Your task to perform on an android device: turn on javascript in the chrome app Image 0: 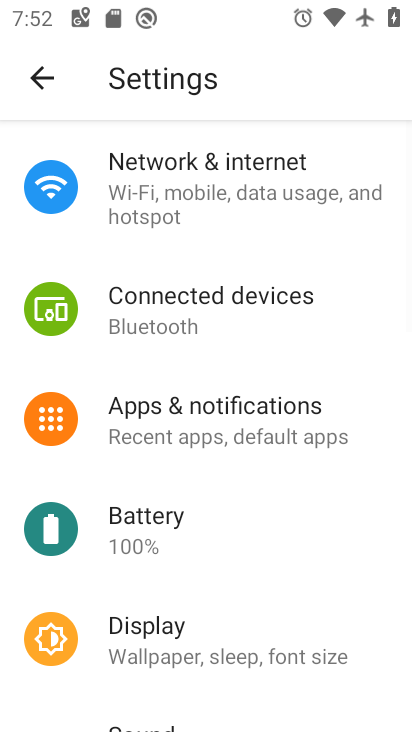
Step 0: press home button
Your task to perform on an android device: turn on javascript in the chrome app Image 1: 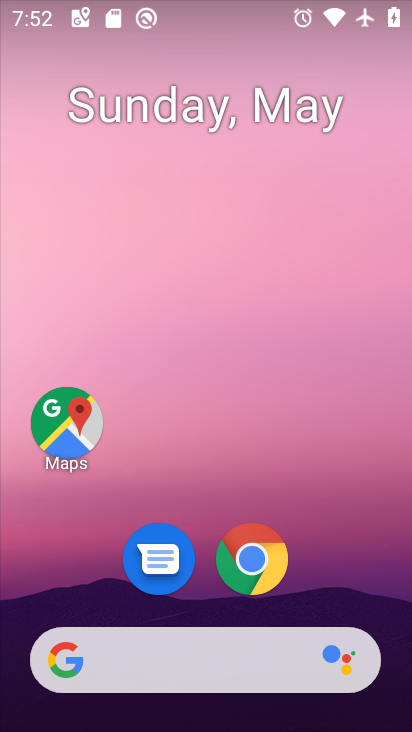
Step 1: click (251, 564)
Your task to perform on an android device: turn on javascript in the chrome app Image 2: 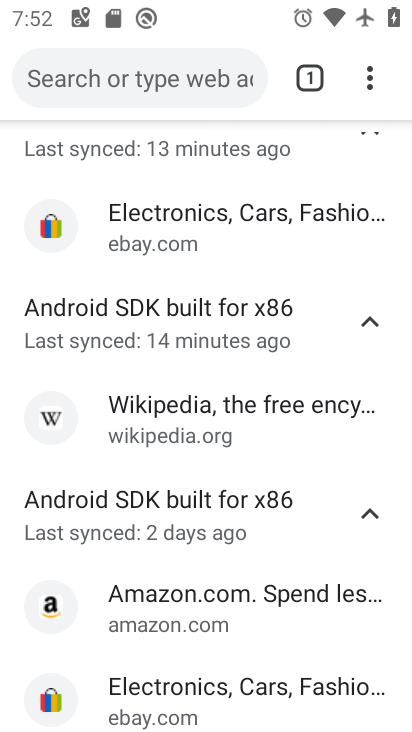
Step 2: drag from (367, 73) to (162, 622)
Your task to perform on an android device: turn on javascript in the chrome app Image 3: 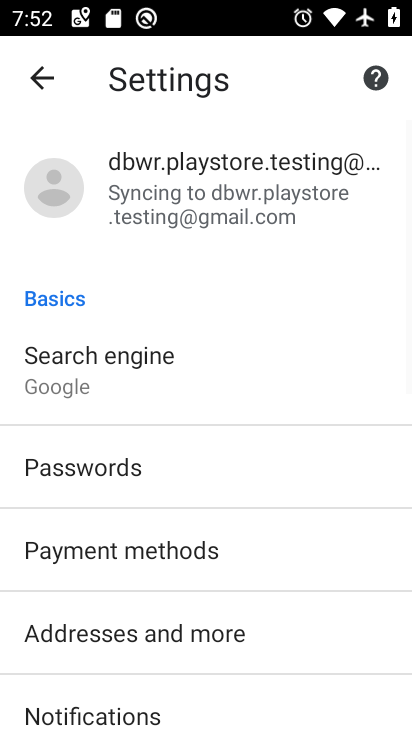
Step 3: drag from (218, 604) to (383, 3)
Your task to perform on an android device: turn on javascript in the chrome app Image 4: 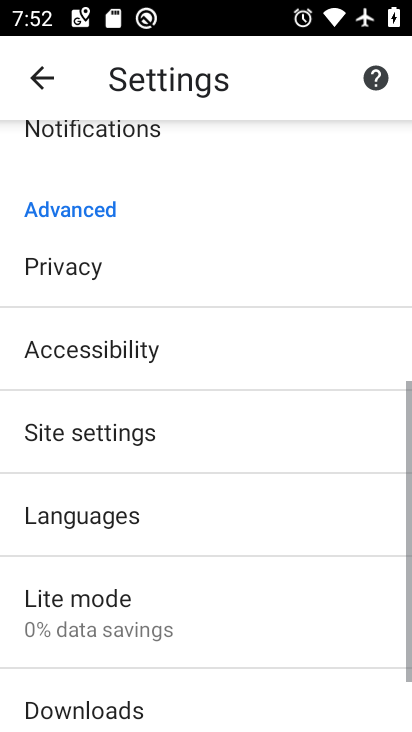
Step 4: click (121, 433)
Your task to perform on an android device: turn on javascript in the chrome app Image 5: 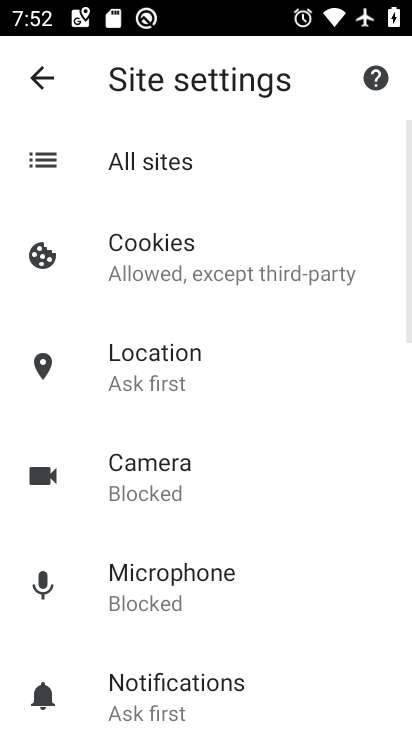
Step 5: drag from (248, 626) to (407, 54)
Your task to perform on an android device: turn on javascript in the chrome app Image 6: 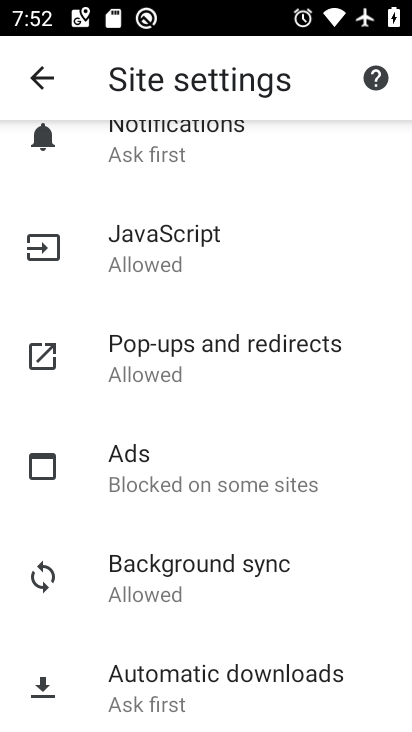
Step 6: click (219, 238)
Your task to perform on an android device: turn on javascript in the chrome app Image 7: 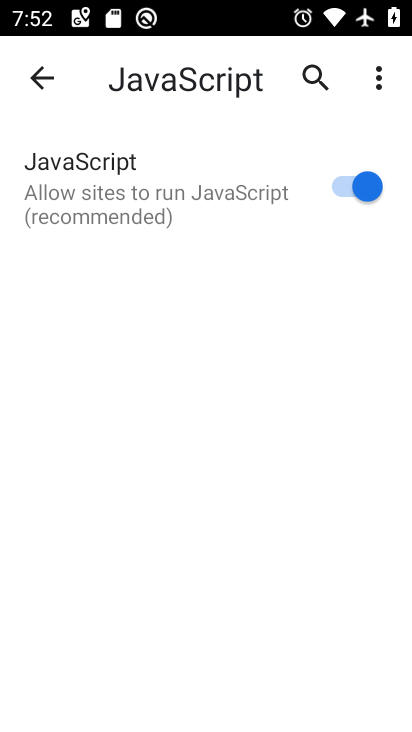
Step 7: task complete